Your task to perform on an android device: What is the news today? Image 0: 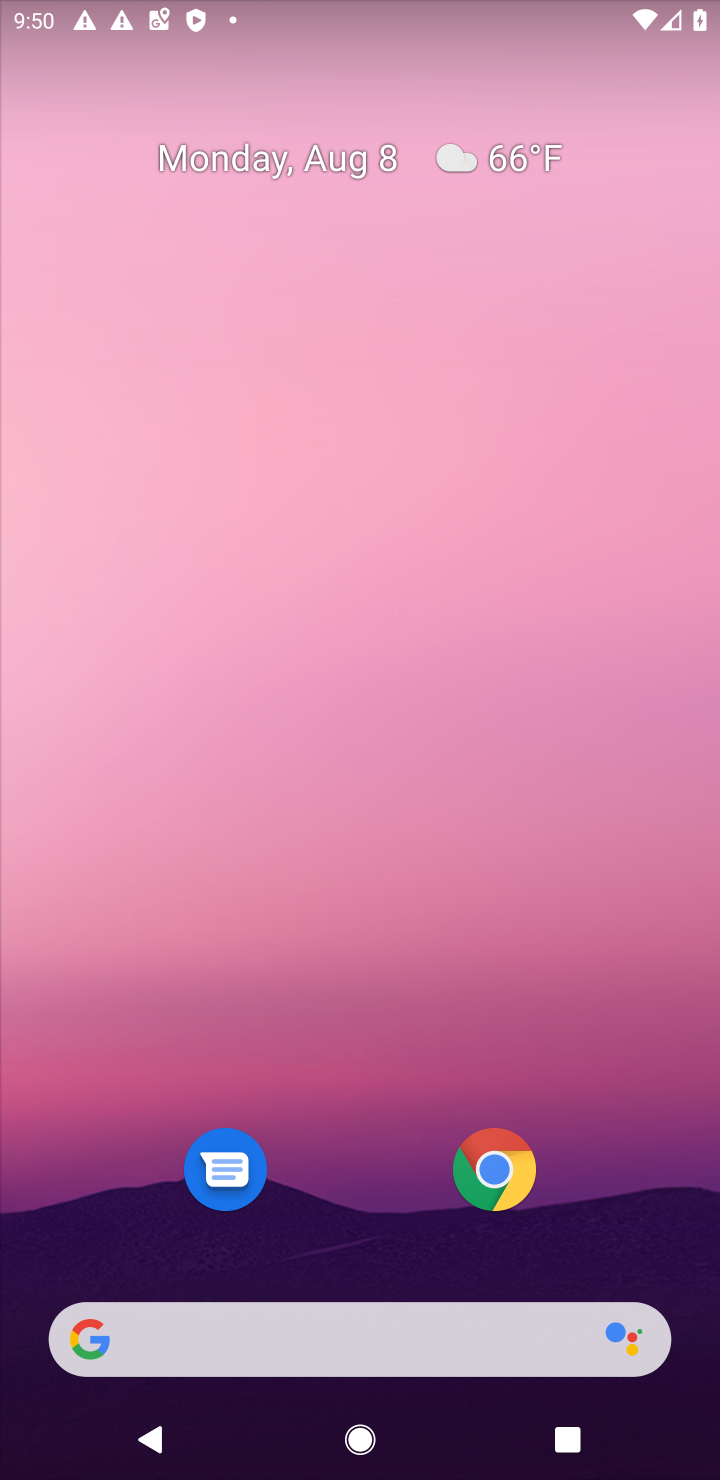
Step 0: click (266, 1341)
Your task to perform on an android device: What is the news today? Image 1: 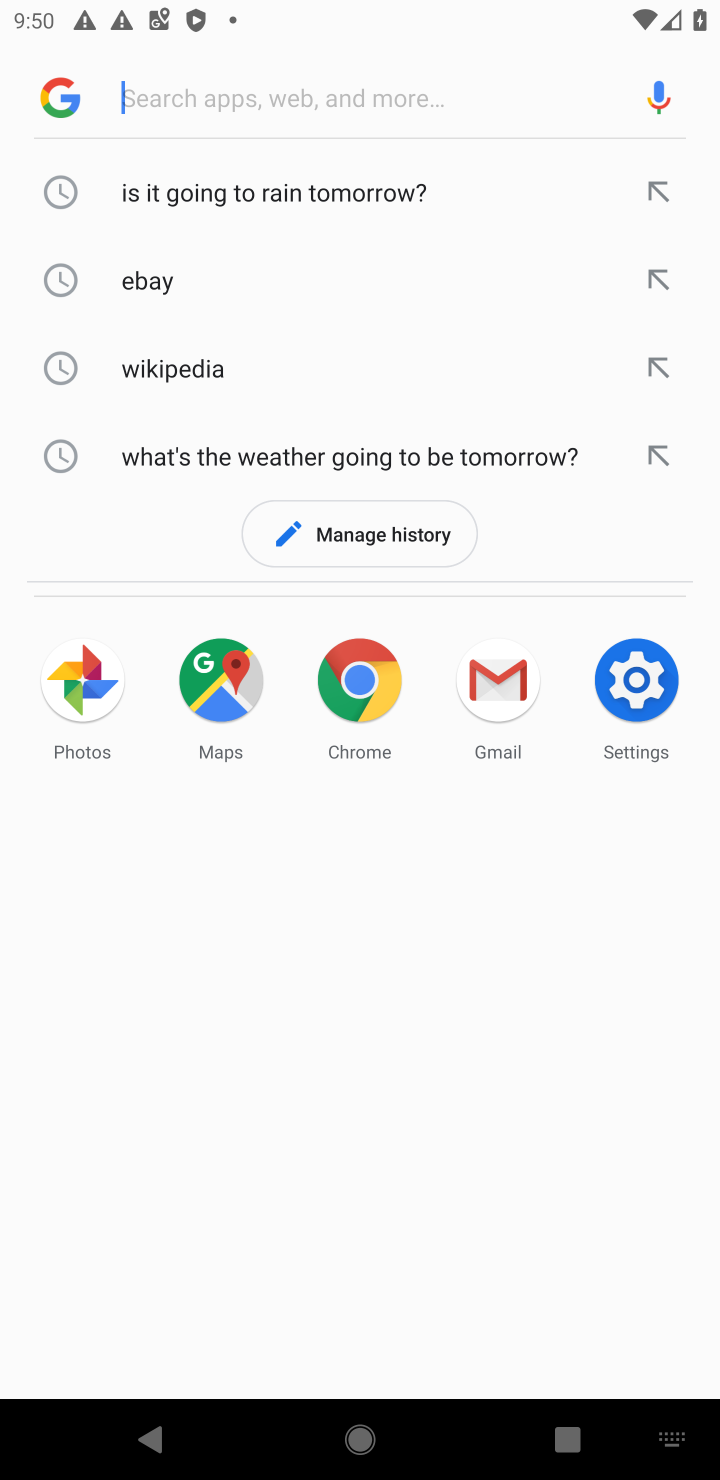
Step 1: click (201, 96)
Your task to perform on an android device: What is the news today? Image 2: 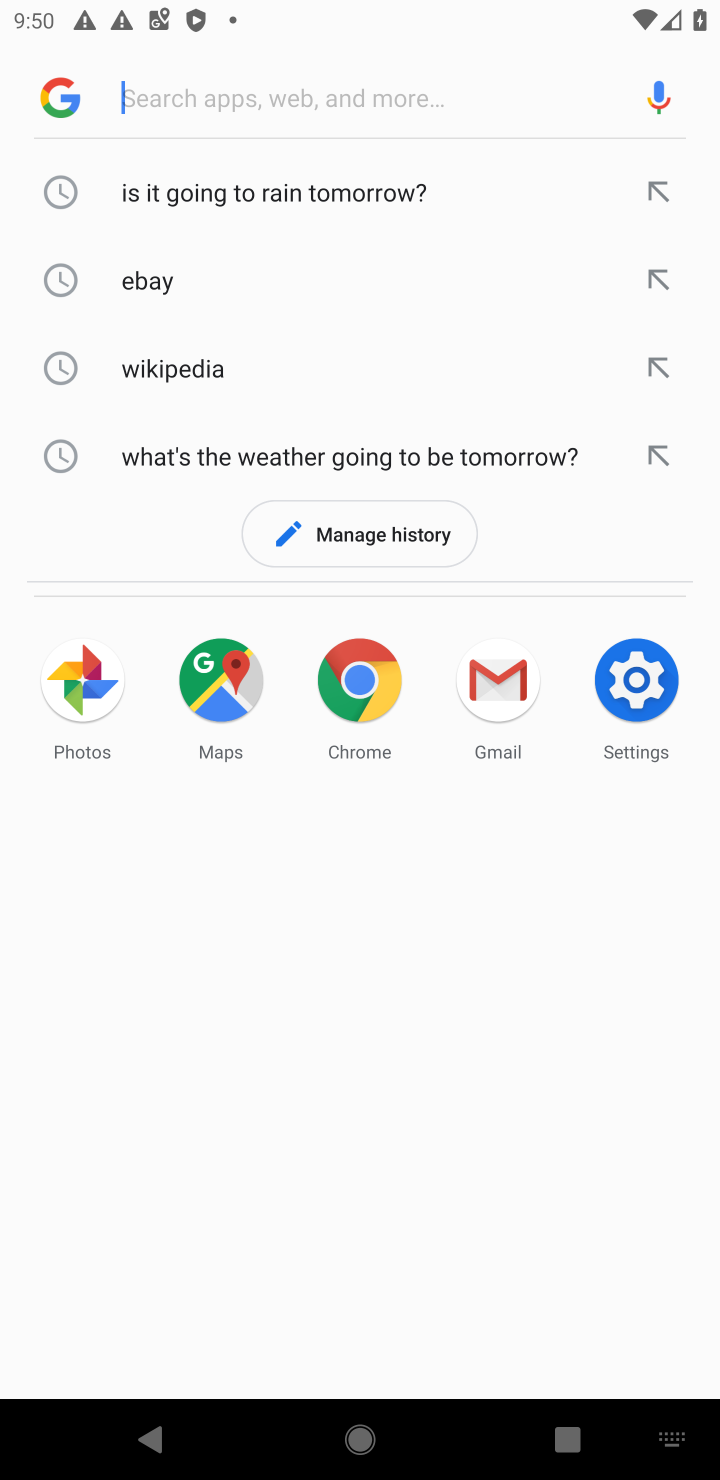
Step 2: type "news today"
Your task to perform on an android device: What is the news today? Image 3: 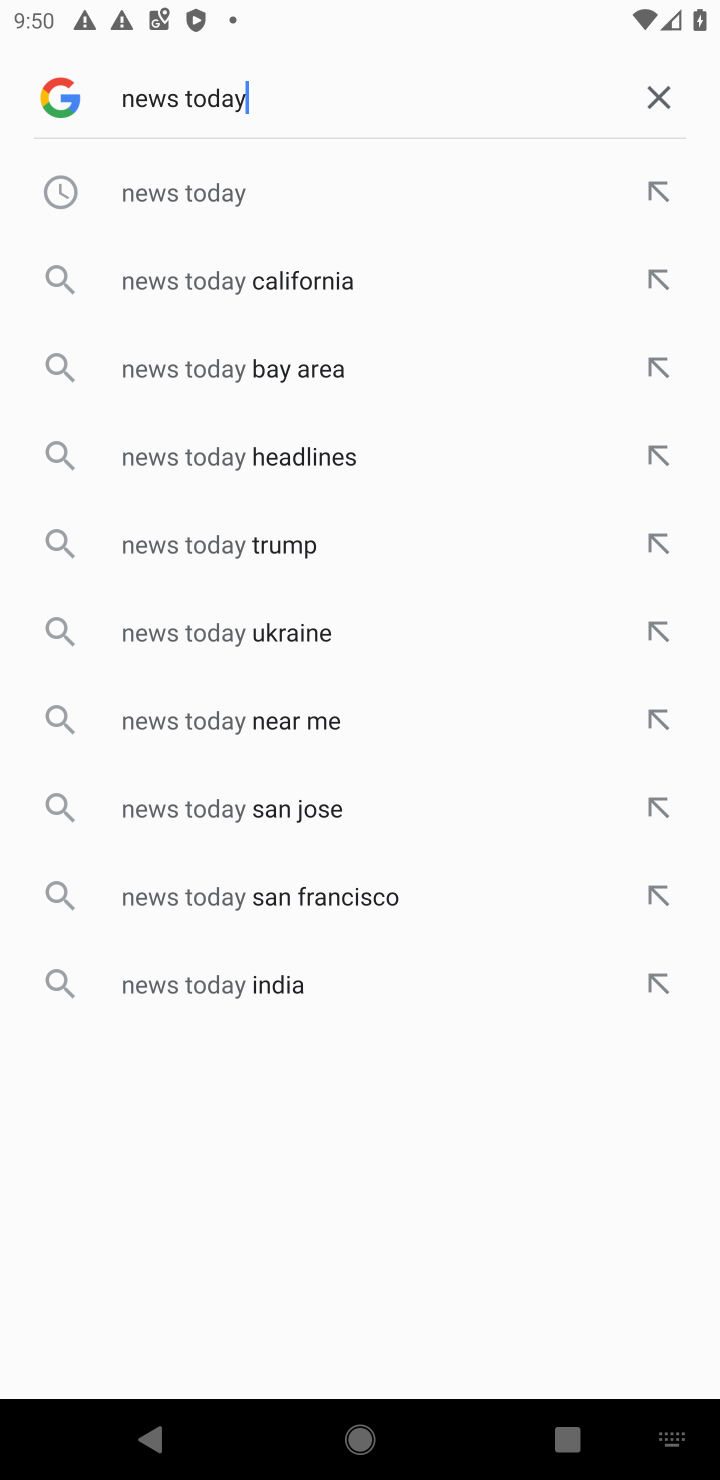
Step 3: click (239, 187)
Your task to perform on an android device: What is the news today? Image 4: 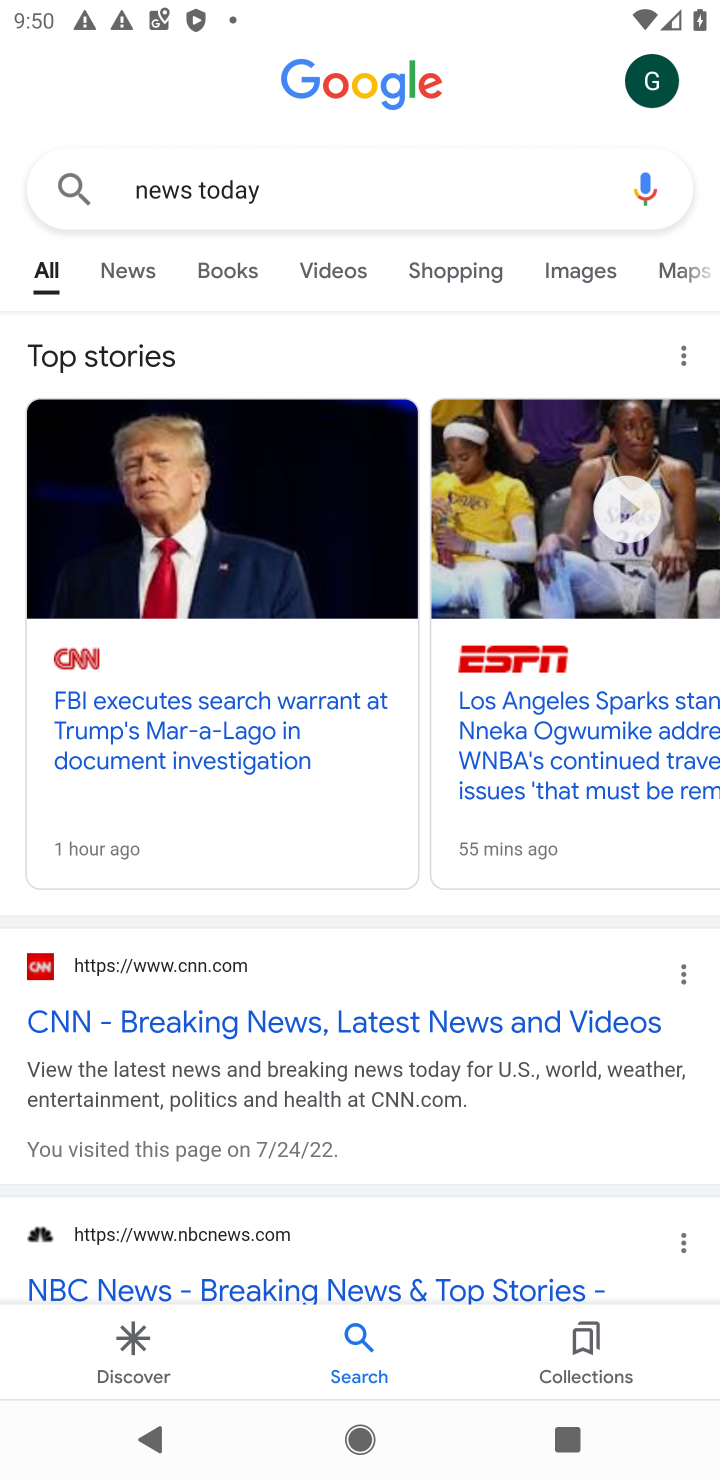
Step 4: task complete